Your task to perform on an android device: Go to location settings Image 0: 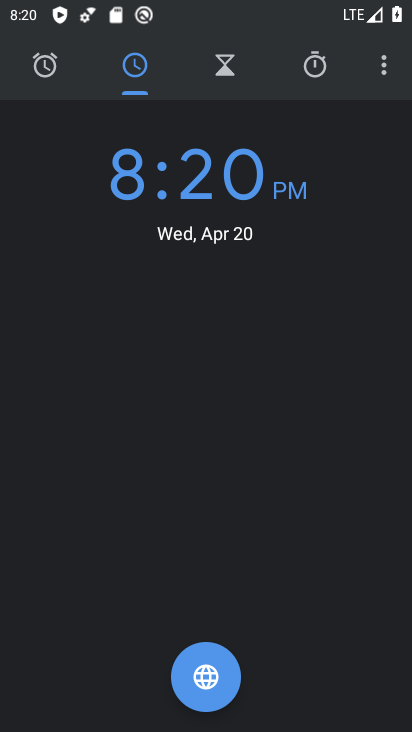
Step 0: press home button
Your task to perform on an android device: Go to location settings Image 1: 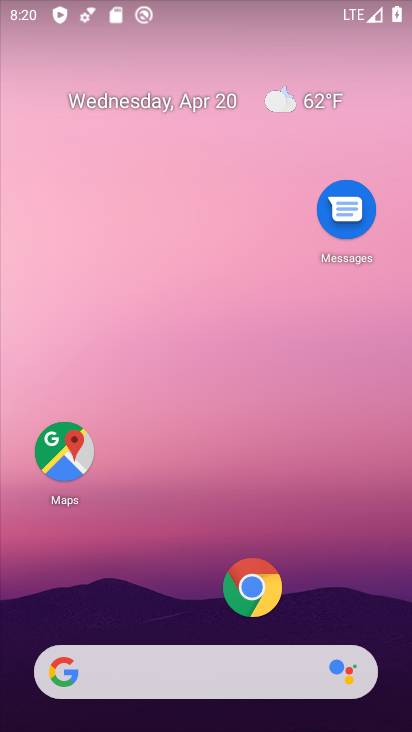
Step 1: drag from (132, 671) to (318, 56)
Your task to perform on an android device: Go to location settings Image 2: 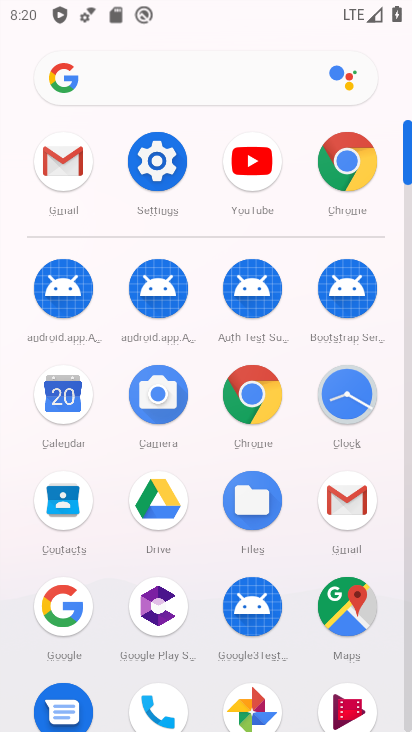
Step 2: click (164, 162)
Your task to perform on an android device: Go to location settings Image 3: 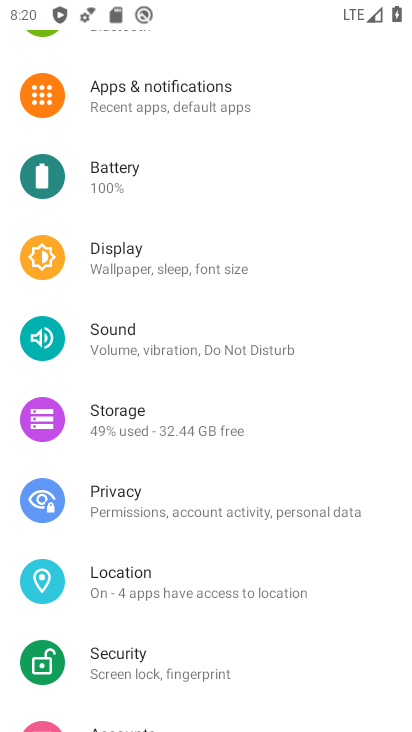
Step 3: click (164, 576)
Your task to perform on an android device: Go to location settings Image 4: 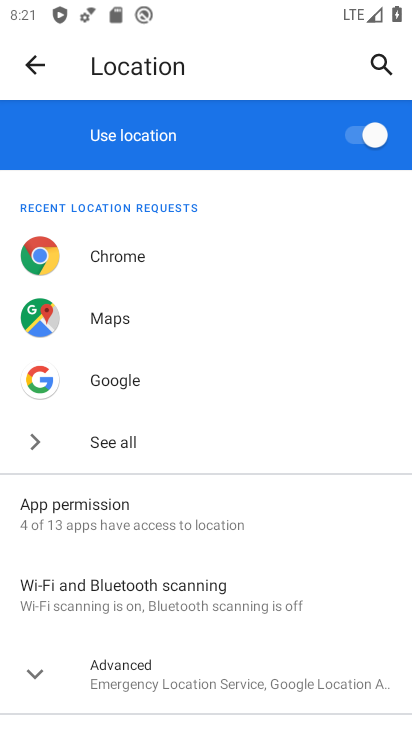
Step 4: click (107, 445)
Your task to perform on an android device: Go to location settings Image 5: 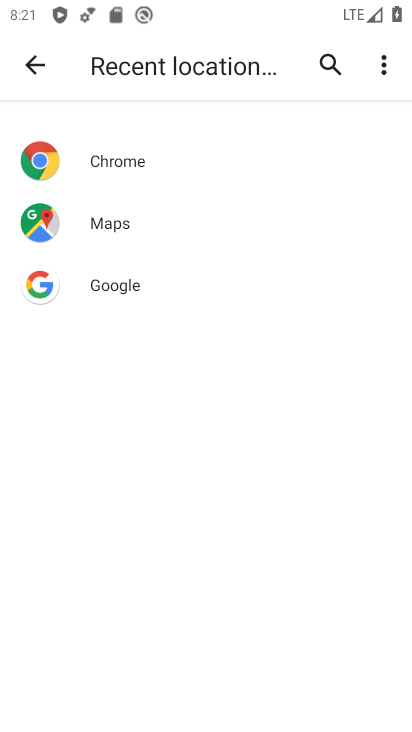
Step 5: task complete